Your task to perform on an android device: move an email to a new category in the gmail app Image 0: 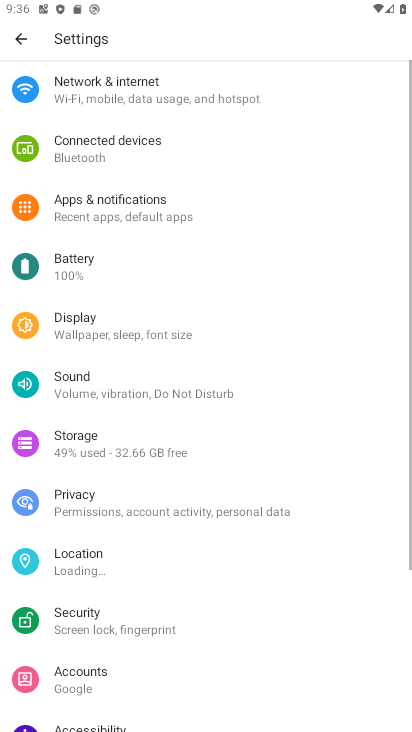
Step 0: press back button
Your task to perform on an android device: move an email to a new category in the gmail app Image 1: 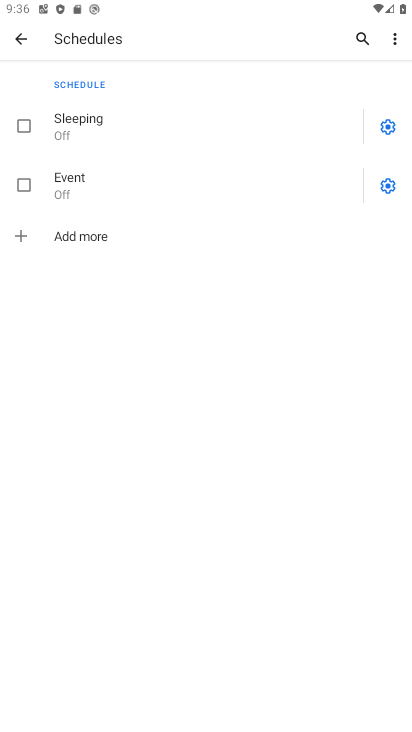
Step 1: press home button
Your task to perform on an android device: move an email to a new category in the gmail app Image 2: 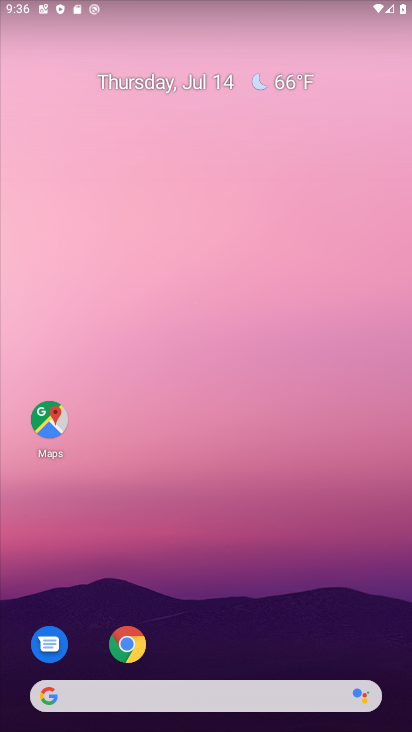
Step 2: drag from (217, 662) to (116, 162)
Your task to perform on an android device: move an email to a new category in the gmail app Image 3: 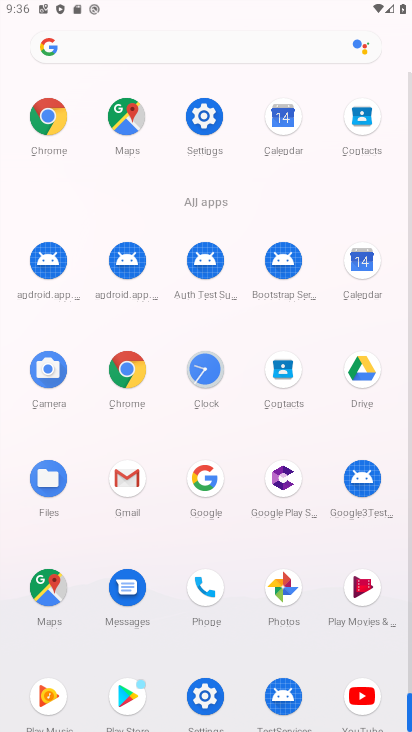
Step 3: click (128, 477)
Your task to perform on an android device: move an email to a new category in the gmail app Image 4: 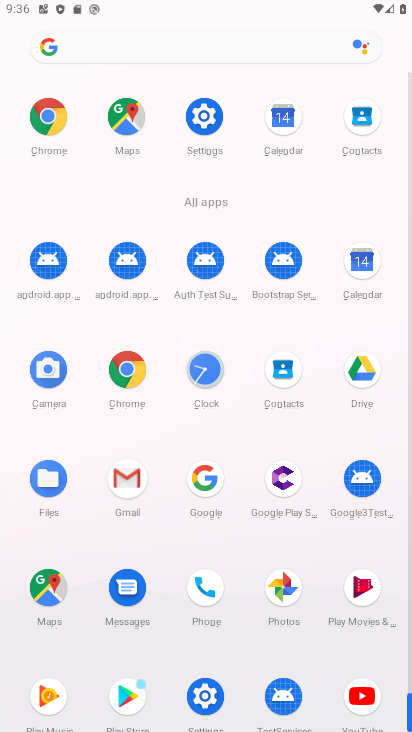
Step 4: click (128, 477)
Your task to perform on an android device: move an email to a new category in the gmail app Image 5: 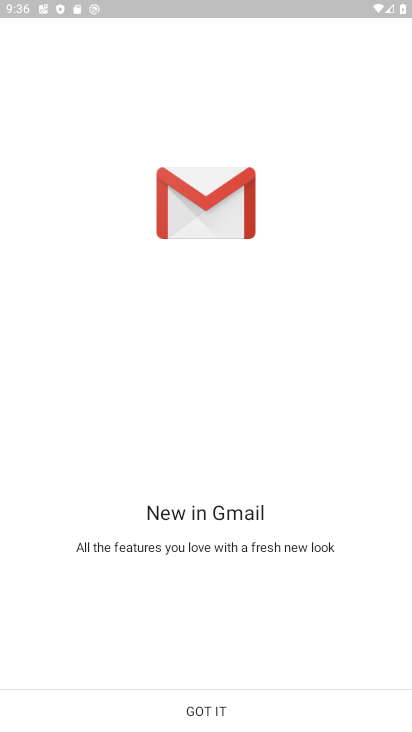
Step 5: click (223, 719)
Your task to perform on an android device: move an email to a new category in the gmail app Image 6: 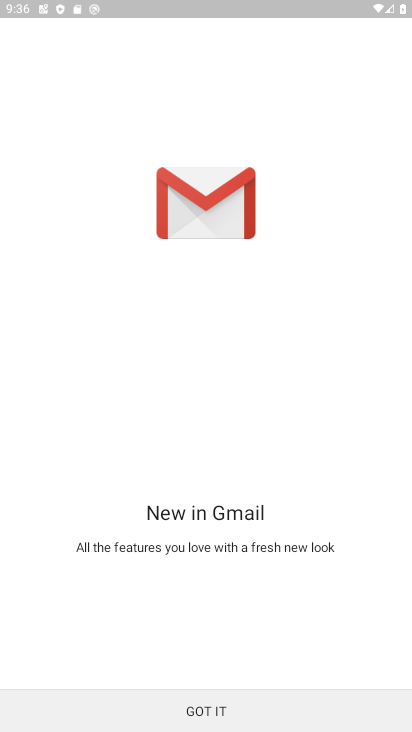
Step 6: click (223, 719)
Your task to perform on an android device: move an email to a new category in the gmail app Image 7: 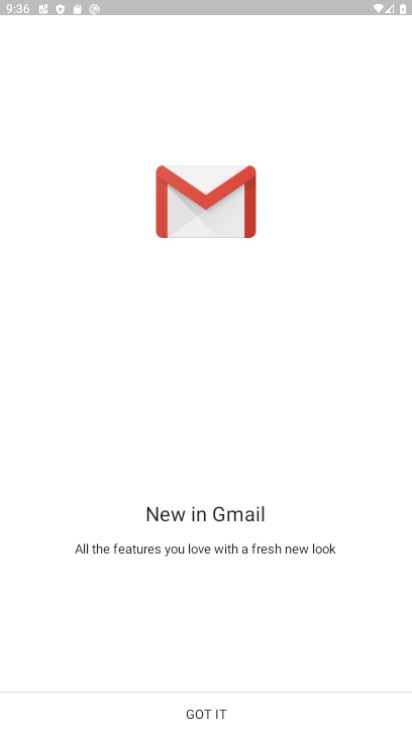
Step 7: click (223, 719)
Your task to perform on an android device: move an email to a new category in the gmail app Image 8: 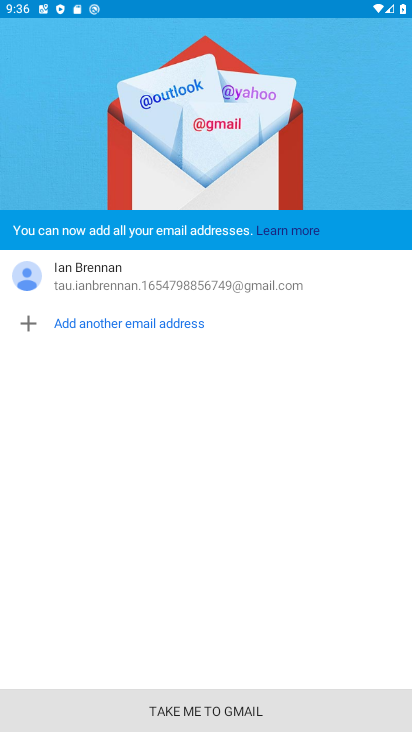
Step 8: click (224, 718)
Your task to perform on an android device: move an email to a new category in the gmail app Image 9: 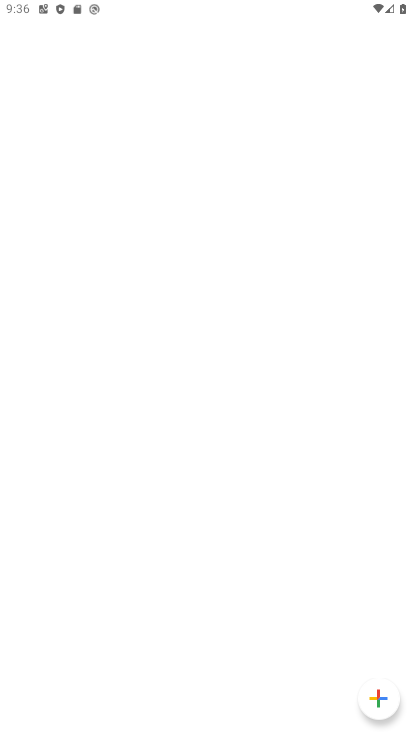
Step 9: click (252, 714)
Your task to perform on an android device: move an email to a new category in the gmail app Image 10: 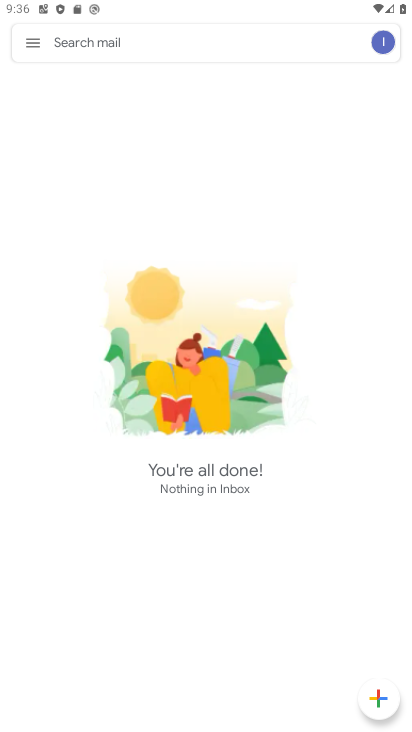
Step 10: click (39, 46)
Your task to perform on an android device: move an email to a new category in the gmail app Image 11: 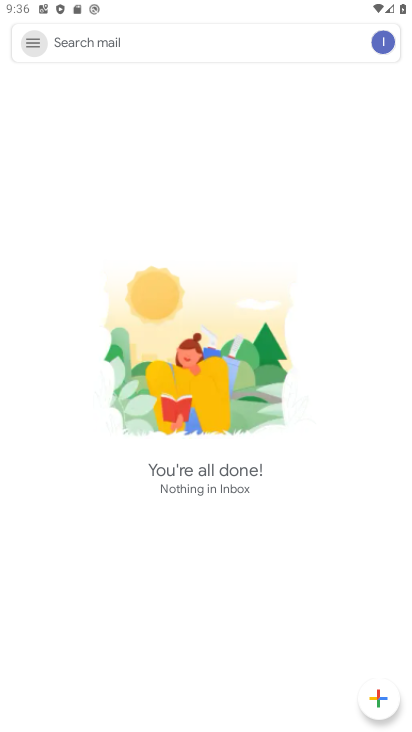
Step 11: click (39, 46)
Your task to perform on an android device: move an email to a new category in the gmail app Image 12: 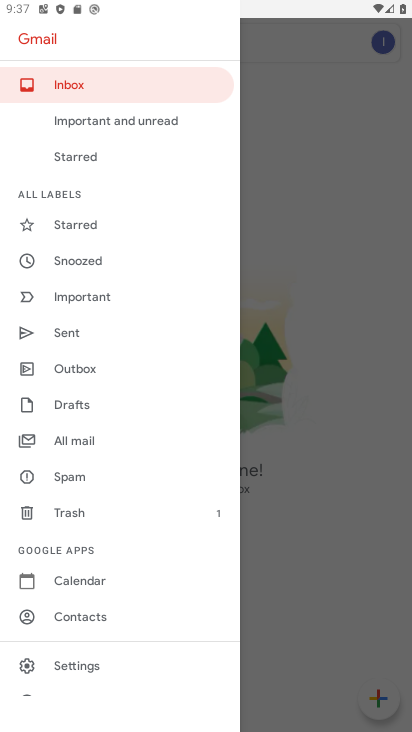
Step 12: click (70, 440)
Your task to perform on an android device: move an email to a new category in the gmail app Image 13: 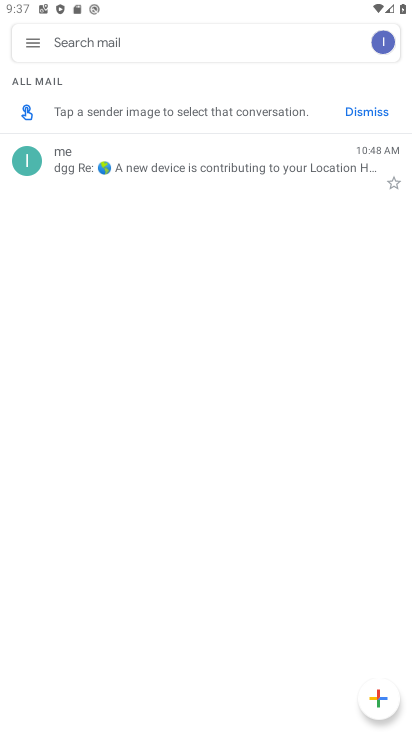
Step 13: click (182, 171)
Your task to perform on an android device: move an email to a new category in the gmail app Image 14: 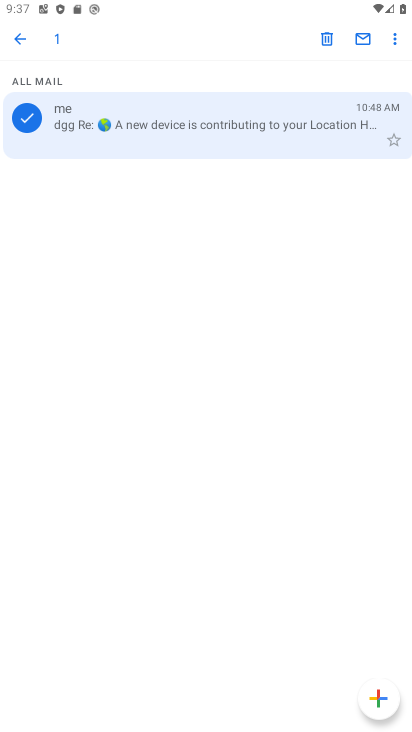
Step 14: click (399, 37)
Your task to perform on an android device: move an email to a new category in the gmail app Image 15: 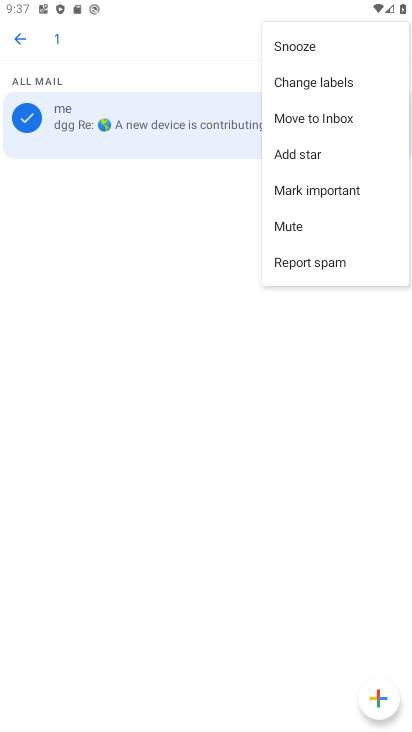
Step 15: click (302, 86)
Your task to perform on an android device: move an email to a new category in the gmail app Image 16: 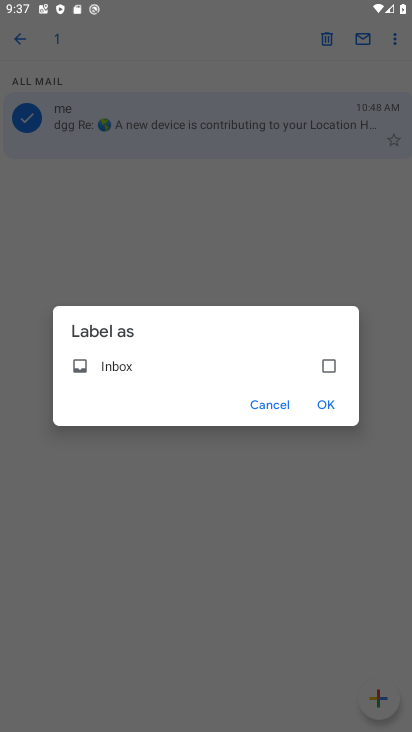
Step 16: click (326, 394)
Your task to perform on an android device: move an email to a new category in the gmail app Image 17: 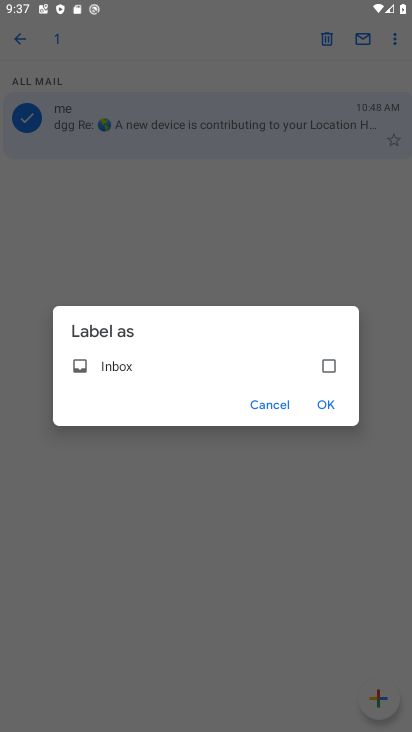
Step 17: click (326, 395)
Your task to perform on an android device: move an email to a new category in the gmail app Image 18: 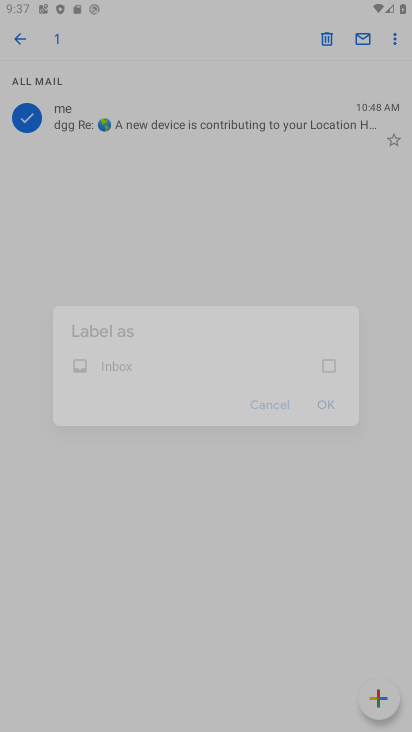
Step 18: click (326, 395)
Your task to perform on an android device: move an email to a new category in the gmail app Image 19: 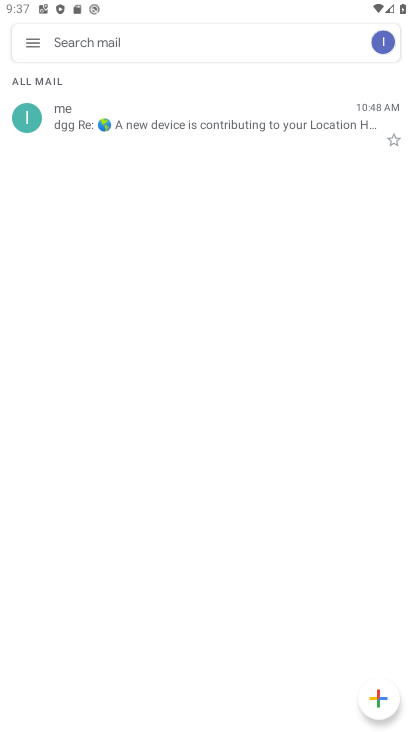
Step 19: task complete